Your task to perform on an android device: open a bookmark in the chrome app Image 0: 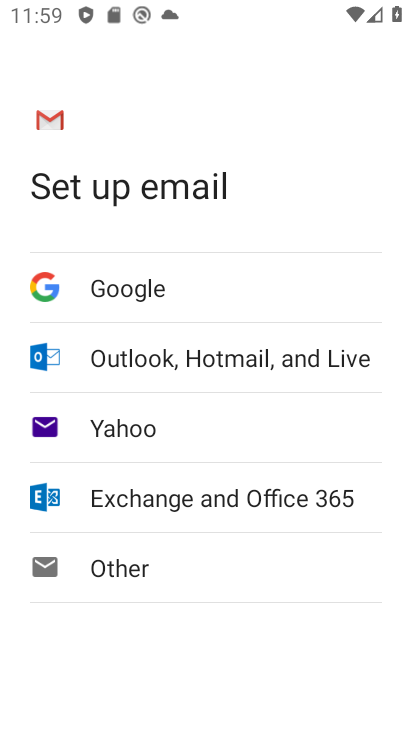
Step 0: press home button
Your task to perform on an android device: open a bookmark in the chrome app Image 1: 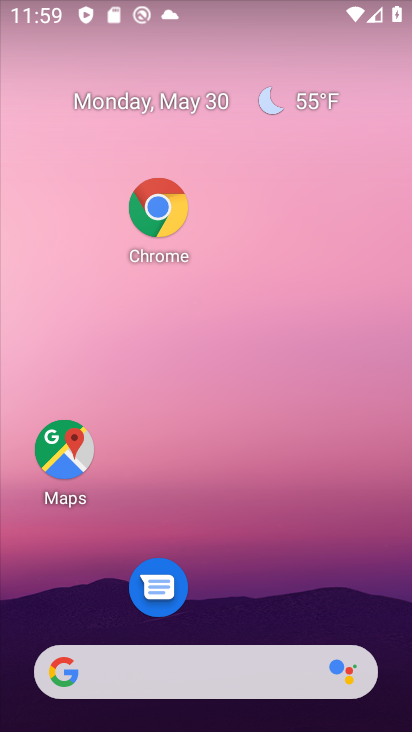
Step 1: click (172, 200)
Your task to perform on an android device: open a bookmark in the chrome app Image 2: 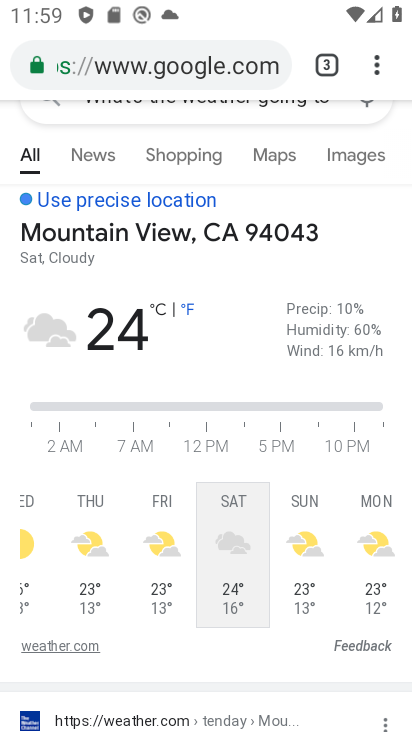
Step 2: click (382, 70)
Your task to perform on an android device: open a bookmark in the chrome app Image 3: 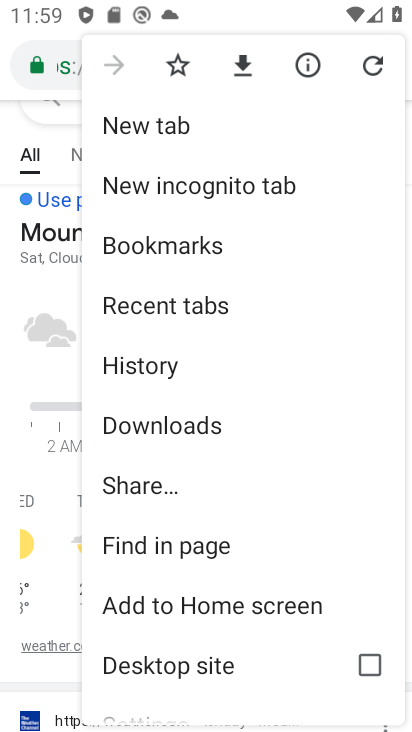
Step 3: click (204, 246)
Your task to perform on an android device: open a bookmark in the chrome app Image 4: 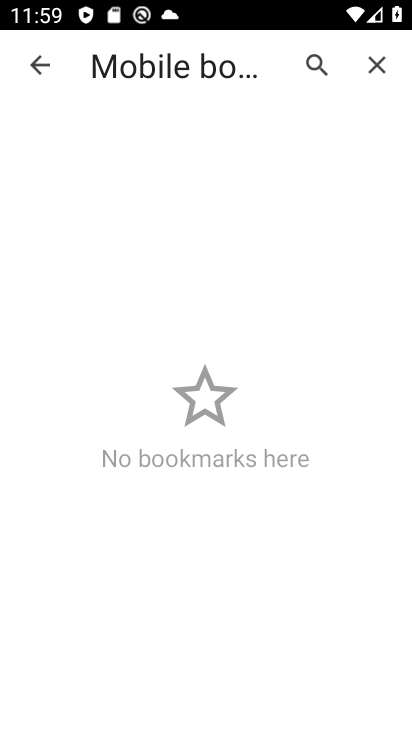
Step 4: task complete